Your task to perform on an android device: Go to Yahoo.com Image 0: 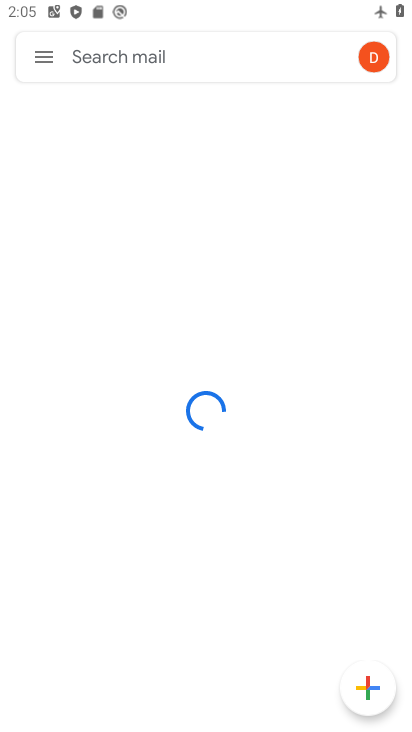
Step 0: press home button
Your task to perform on an android device: Go to Yahoo.com Image 1: 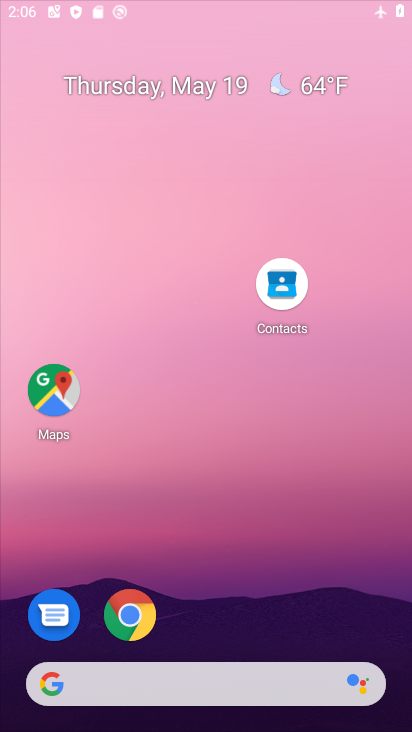
Step 1: drag from (221, 671) to (228, 219)
Your task to perform on an android device: Go to Yahoo.com Image 2: 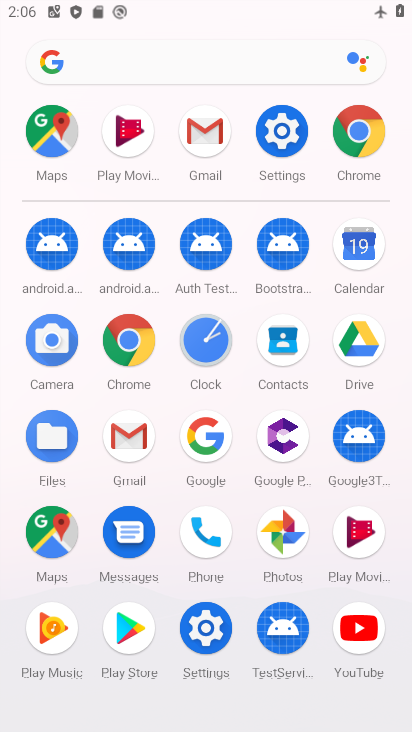
Step 2: click (135, 340)
Your task to perform on an android device: Go to Yahoo.com Image 3: 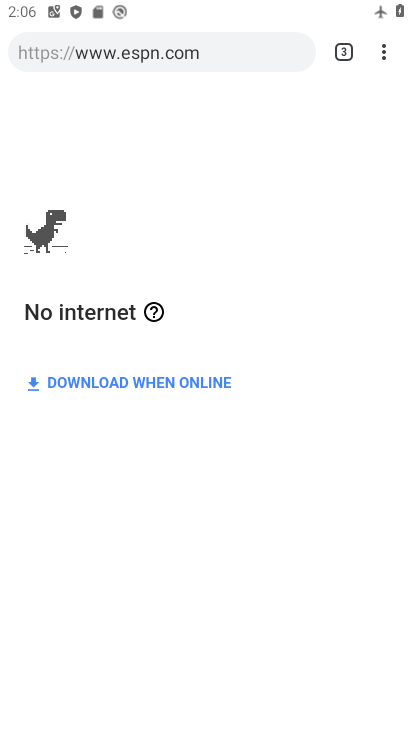
Step 3: click (245, 57)
Your task to perform on an android device: Go to Yahoo.com Image 4: 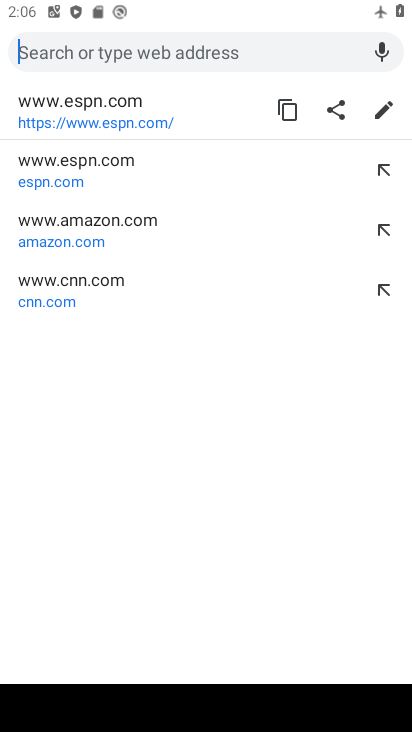
Step 4: task complete